Your task to perform on an android device: change the clock display to analog Image 0: 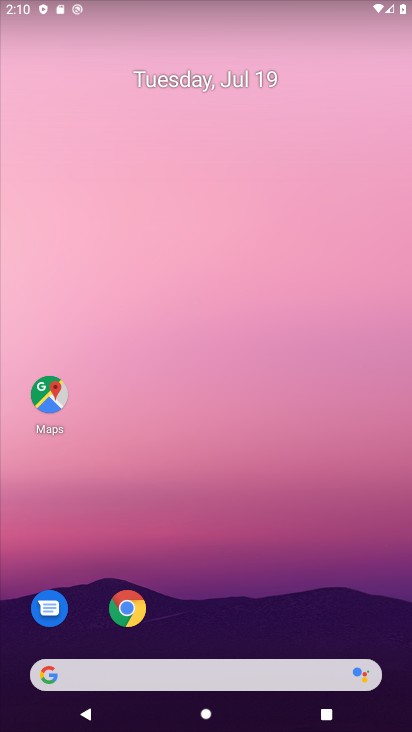
Step 0: click (244, 594)
Your task to perform on an android device: change the clock display to analog Image 1: 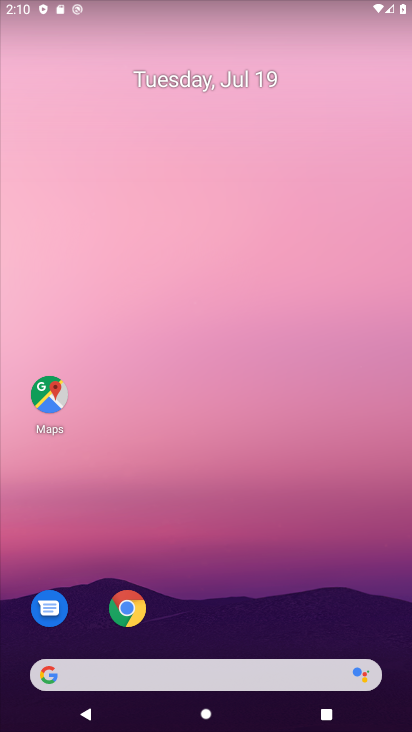
Step 1: drag from (272, 615) to (216, 190)
Your task to perform on an android device: change the clock display to analog Image 2: 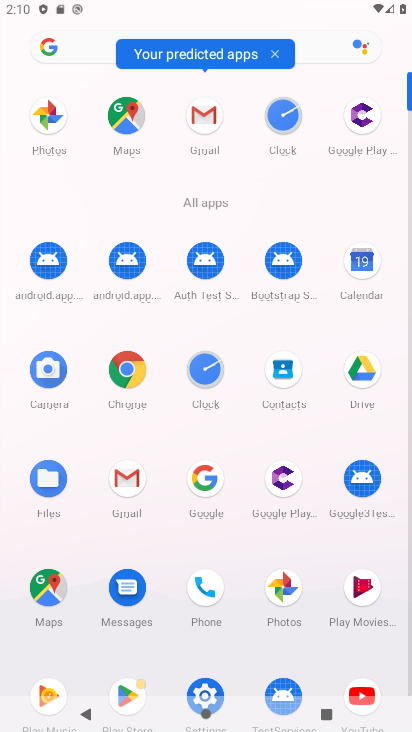
Step 2: click (206, 374)
Your task to perform on an android device: change the clock display to analog Image 3: 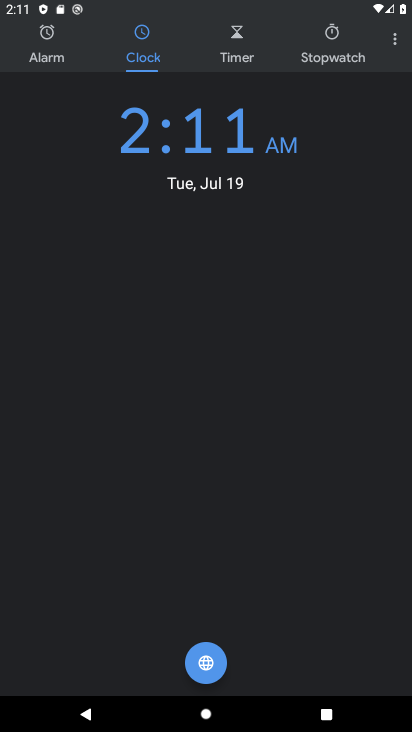
Step 3: click (398, 42)
Your task to perform on an android device: change the clock display to analog Image 4: 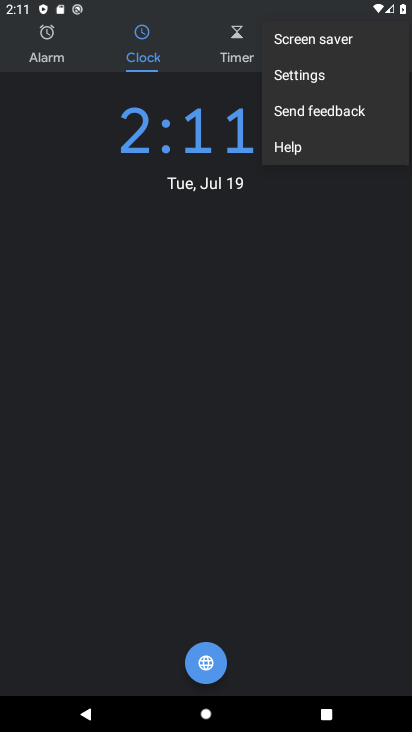
Step 4: click (313, 80)
Your task to perform on an android device: change the clock display to analog Image 5: 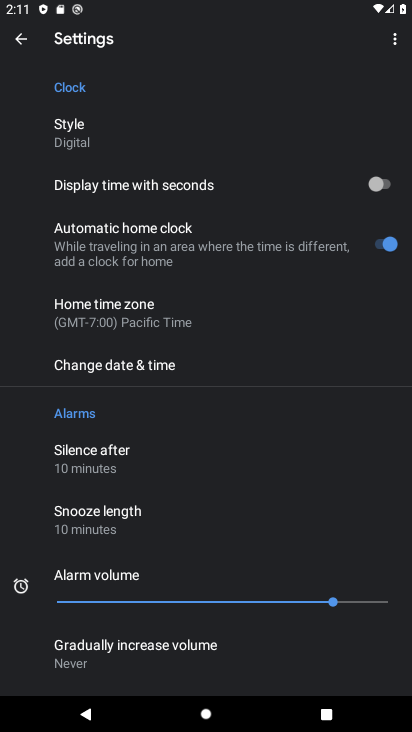
Step 5: click (196, 138)
Your task to perform on an android device: change the clock display to analog Image 6: 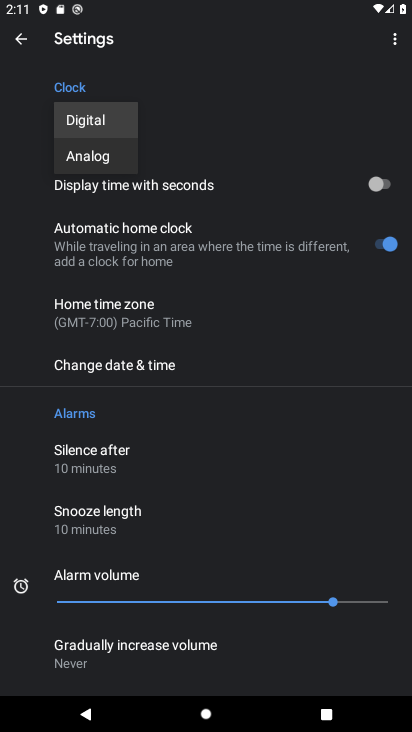
Step 6: click (118, 155)
Your task to perform on an android device: change the clock display to analog Image 7: 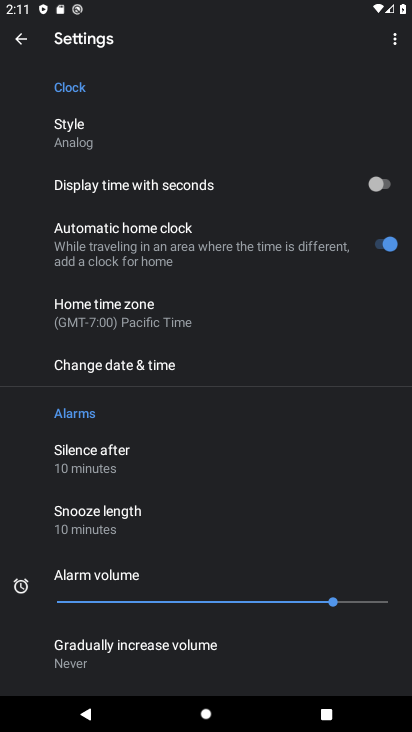
Step 7: task complete